Your task to perform on an android device: Go to CNN.com Image 0: 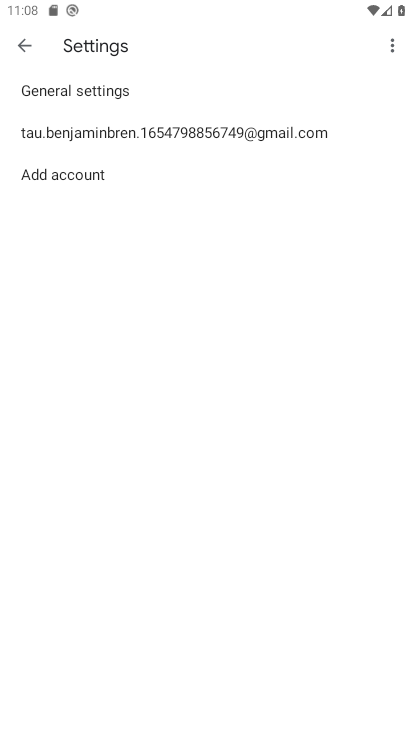
Step 0: press home button
Your task to perform on an android device: Go to CNN.com Image 1: 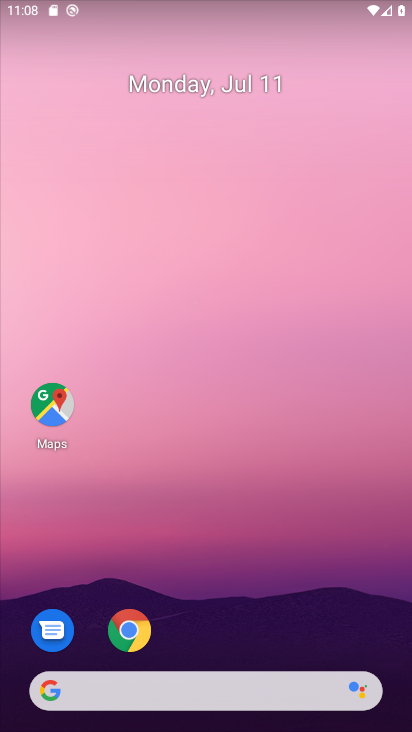
Step 1: click (128, 628)
Your task to perform on an android device: Go to CNN.com Image 2: 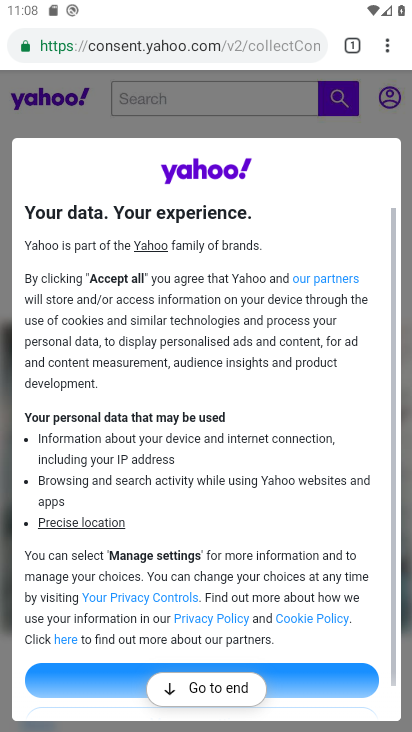
Step 2: click (205, 41)
Your task to perform on an android device: Go to CNN.com Image 3: 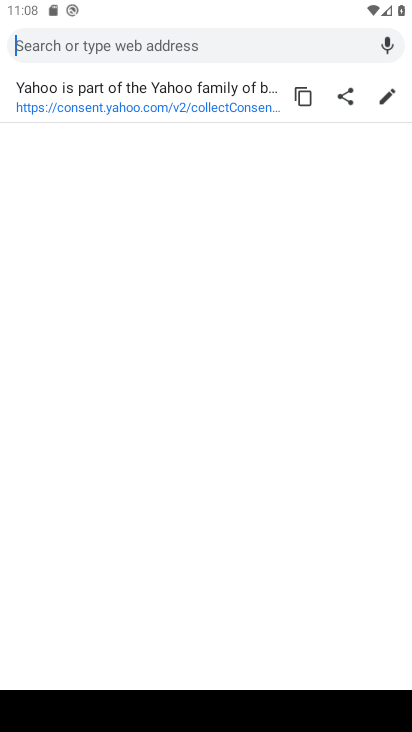
Step 3: type "CNN.com"
Your task to perform on an android device: Go to CNN.com Image 4: 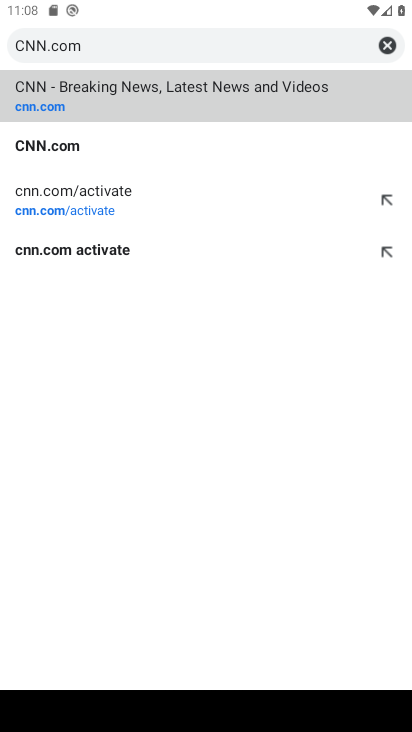
Step 4: click (176, 92)
Your task to perform on an android device: Go to CNN.com Image 5: 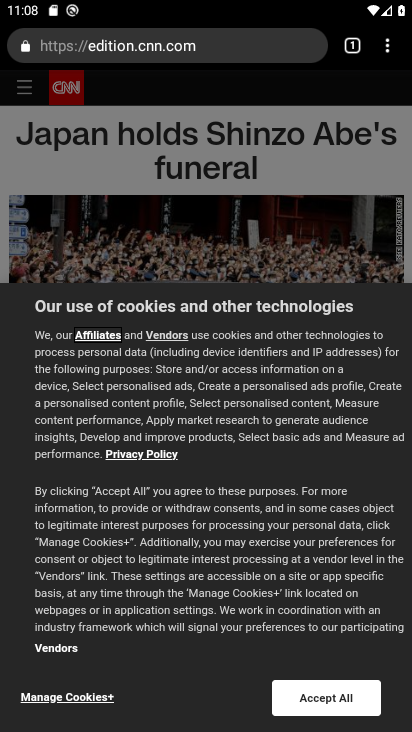
Step 5: task complete